Your task to perform on an android device: open app "Speedtest by Ookla" Image 0: 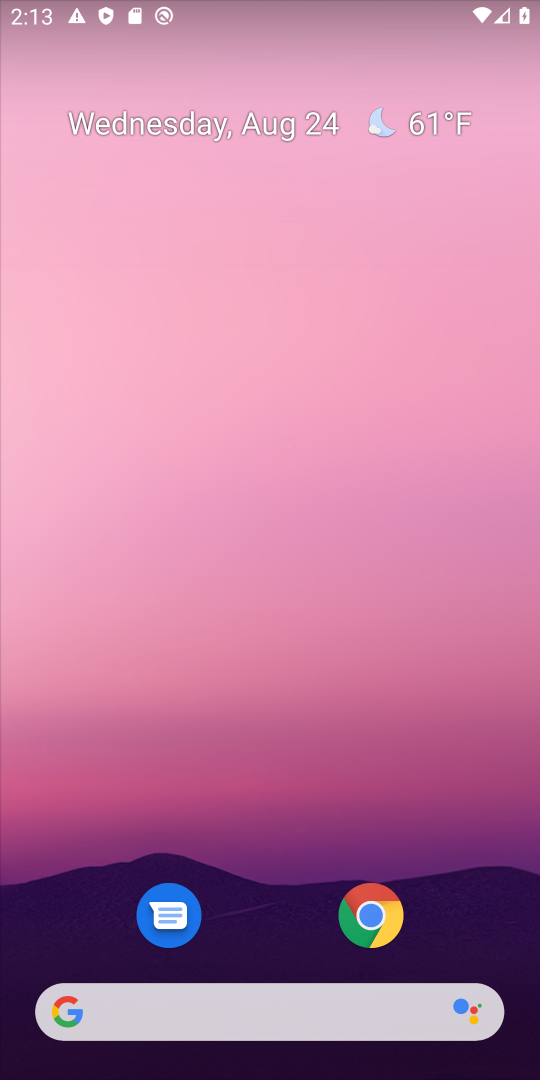
Step 0: drag from (274, 880) to (274, 100)
Your task to perform on an android device: open app "Speedtest by Ookla" Image 1: 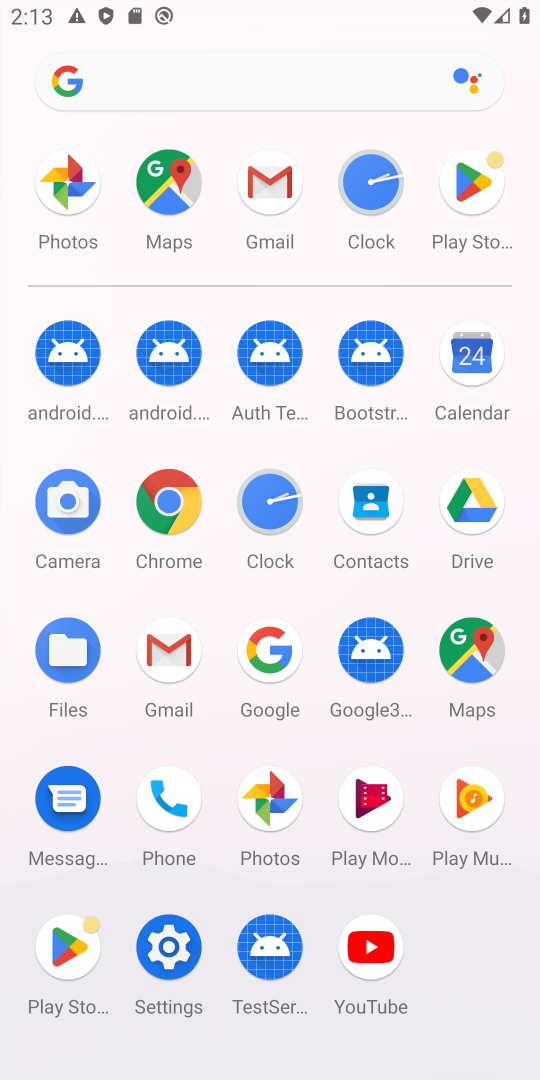
Step 1: click (464, 192)
Your task to perform on an android device: open app "Speedtest by Ookla" Image 2: 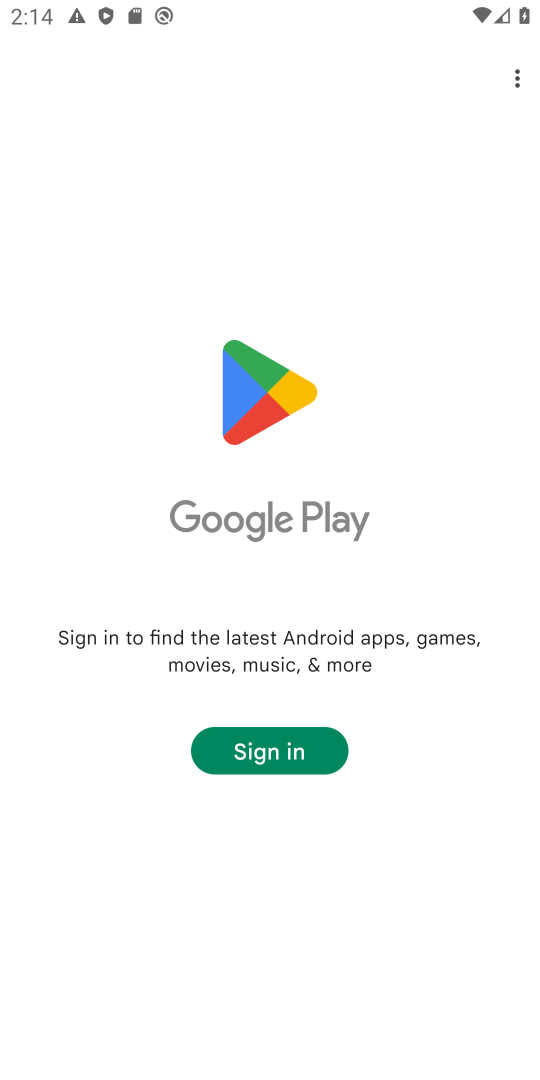
Step 2: task complete